Your task to perform on an android device: turn on wifi Image 0: 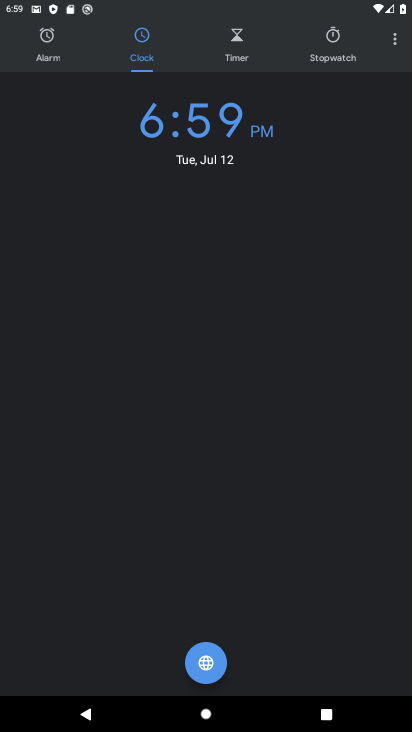
Step 0: press home button
Your task to perform on an android device: turn on wifi Image 1: 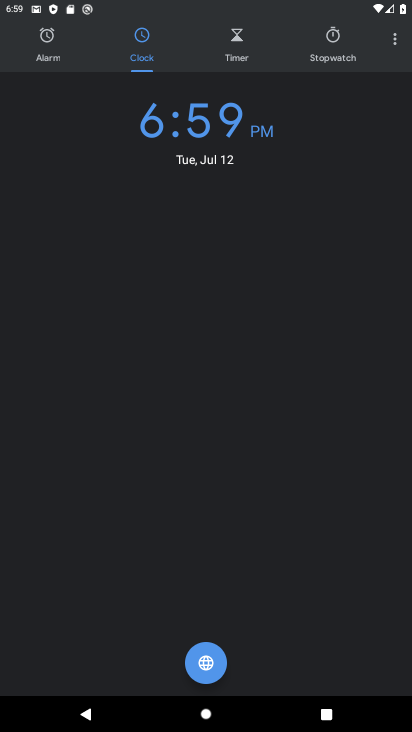
Step 1: press home button
Your task to perform on an android device: turn on wifi Image 2: 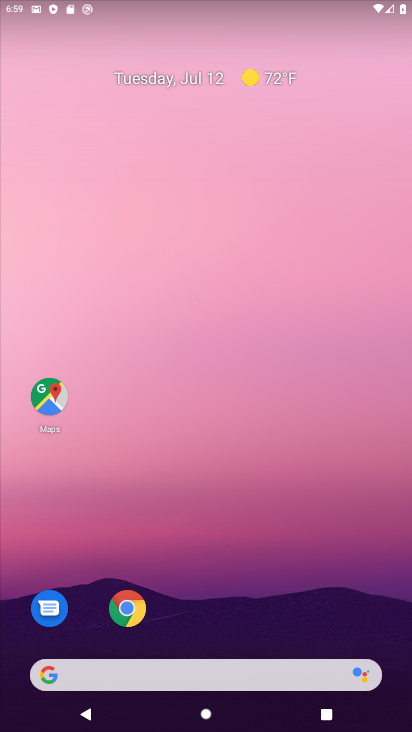
Step 2: drag from (225, 536) to (176, 67)
Your task to perform on an android device: turn on wifi Image 3: 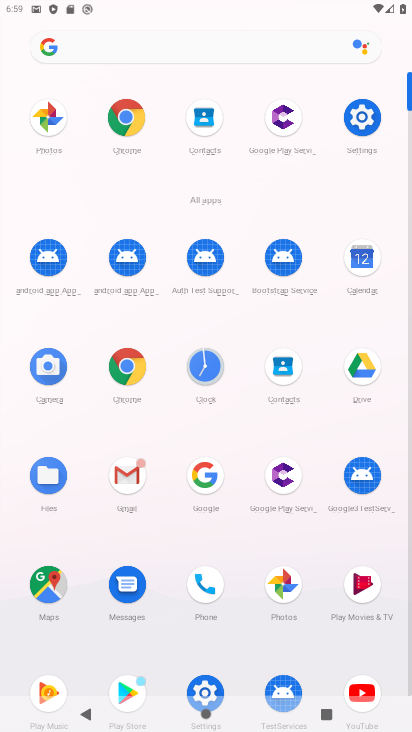
Step 3: click (360, 115)
Your task to perform on an android device: turn on wifi Image 4: 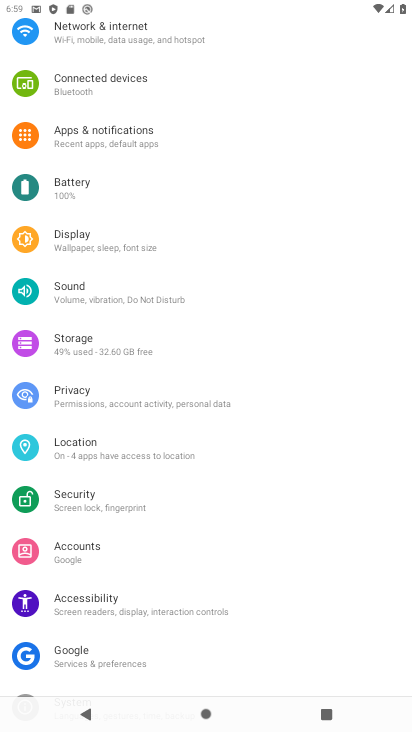
Step 4: drag from (238, 124) to (277, 523)
Your task to perform on an android device: turn on wifi Image 5: 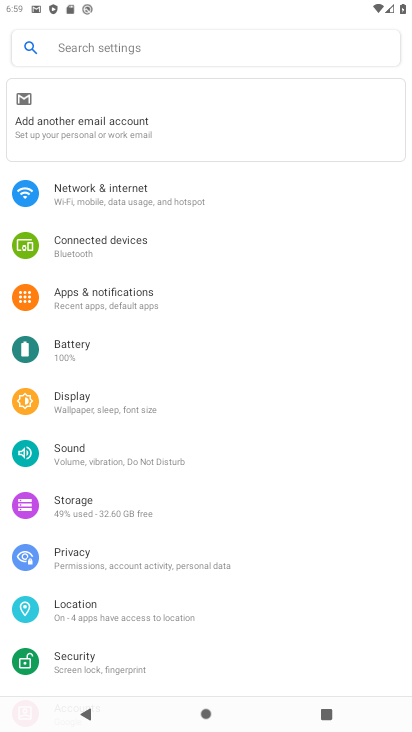
Step 5: click (110, 188)
Your task to perform on an android device: turn on wifi Image 6: 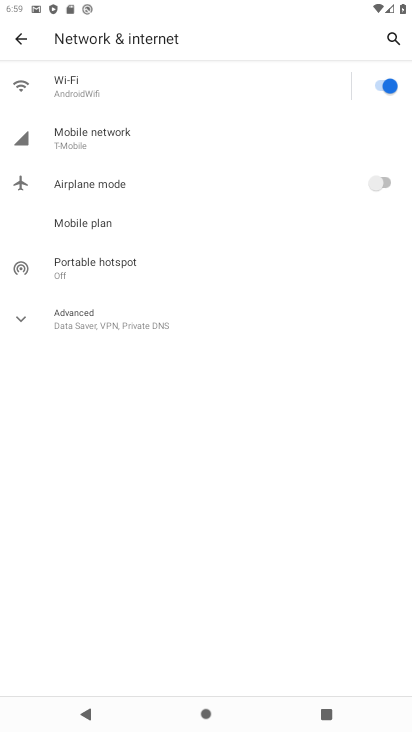
Step 6: task complete